Your task to perform on an android device: turn notification dots on Image 0: 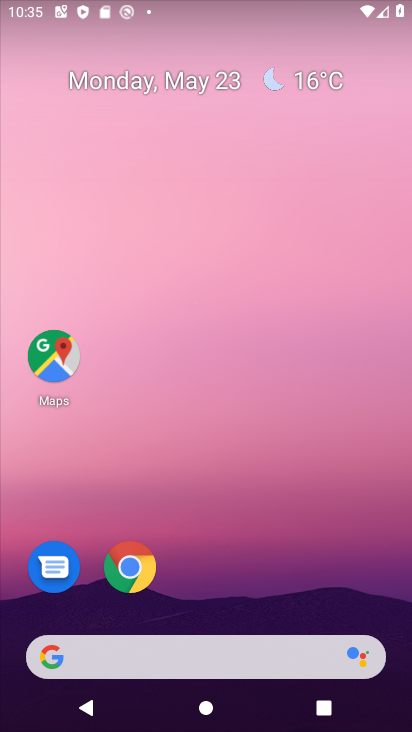
Step 0: drag from (218, 610) to (288, 215)
Your task to perform on an android device: turn notification dots on Image 1: 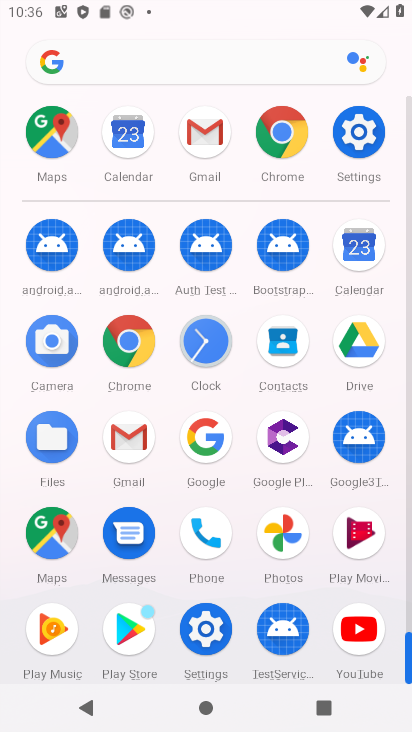
Step 1: click (351, 130)
Your task to perform on an android device: turn notification dots on Image 2: 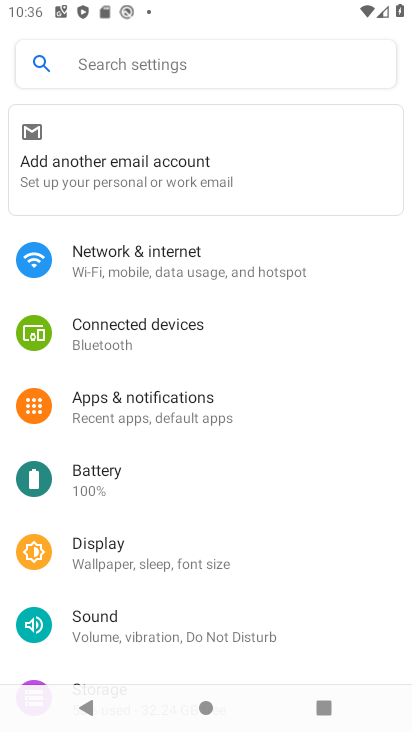
Step 2: drag from (175, 658) to (269, 132)
Your task to perform on an android device: turn notification dots on Image 3: 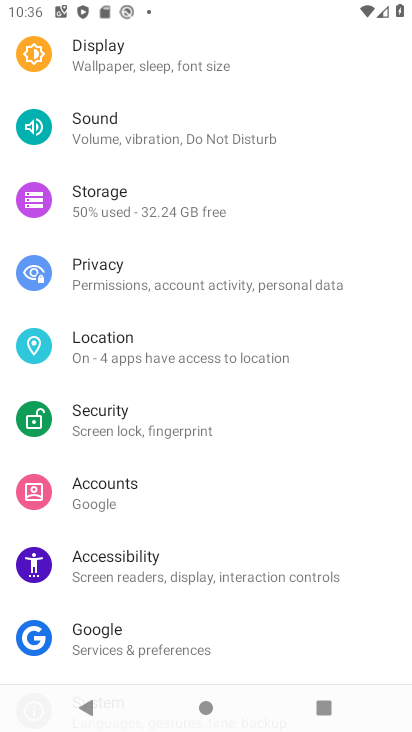
Step 3: drag from (264, 164) to (303, 653)
Your task to perform on an android device: turn notification dots on Image 4: 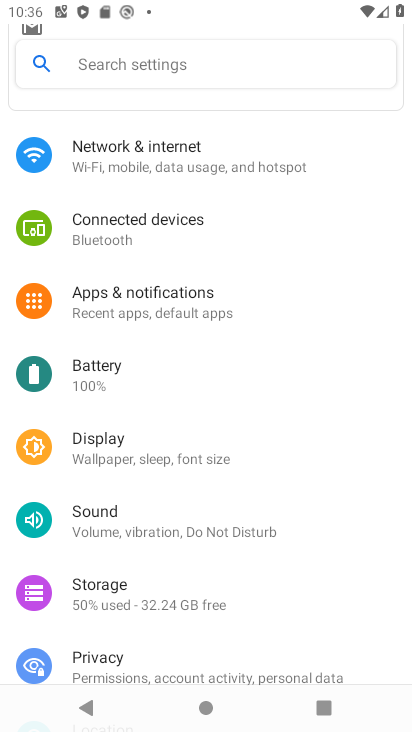
Step 4: click (166, 300)
Your task to perform on an android device: turn notification dots on Image 5: 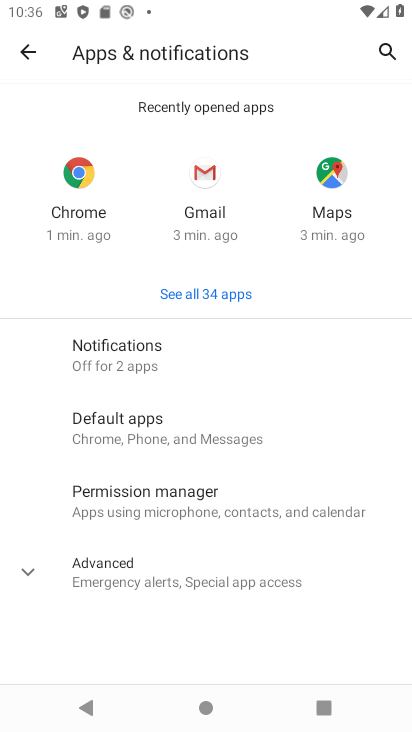
Step 5: click (178, 353)
Your task to perform on an android device: turn notification dots on Image 6: 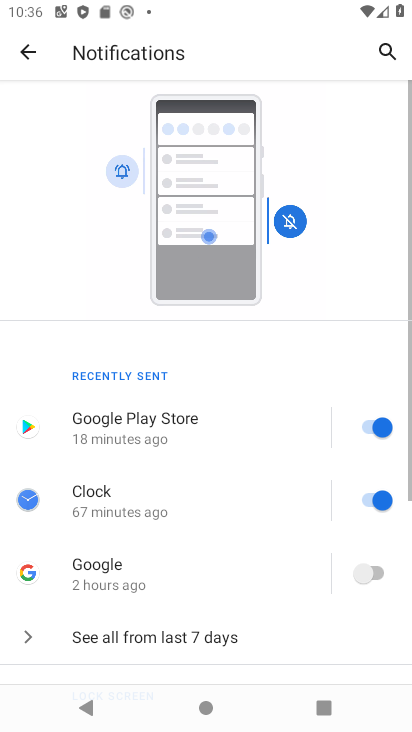
Step 6: drag from (189, 590) to (306, 109)
Your task to perform on an android device: turn notification dots on Image 7: 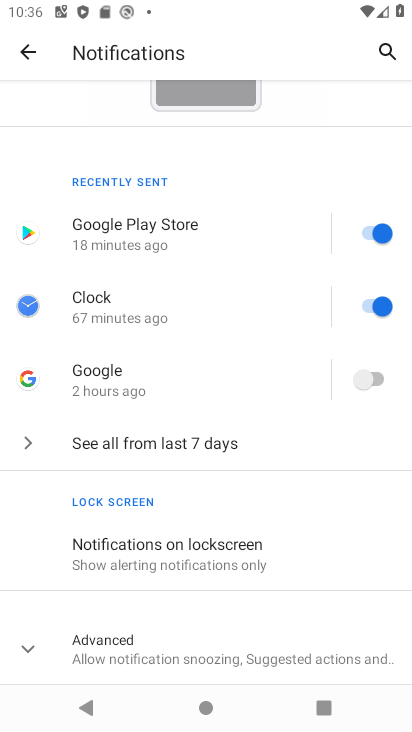
Step 7: click (149, 661)
Your task to perform on an android device: turn notification dots on Image 8: 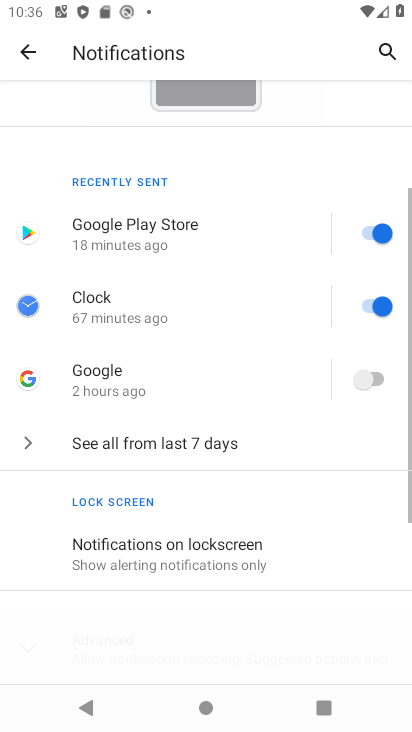
Step 8: task complete